Your task to perform on an android device: What's the weather today? Image 0: 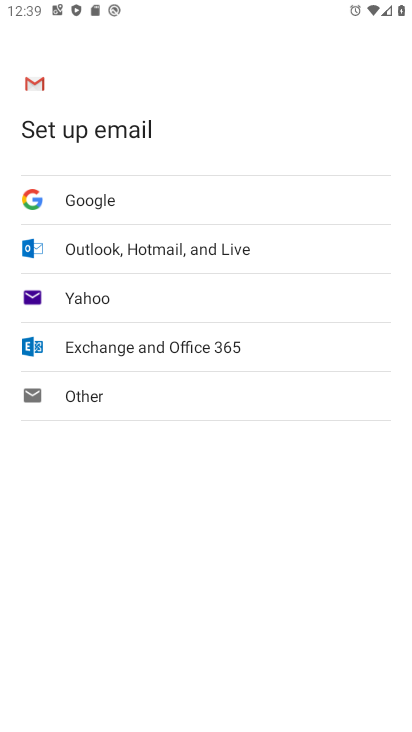
Step 0: press home button
Your task to perform on an android device: What's the weather today? Image 1: 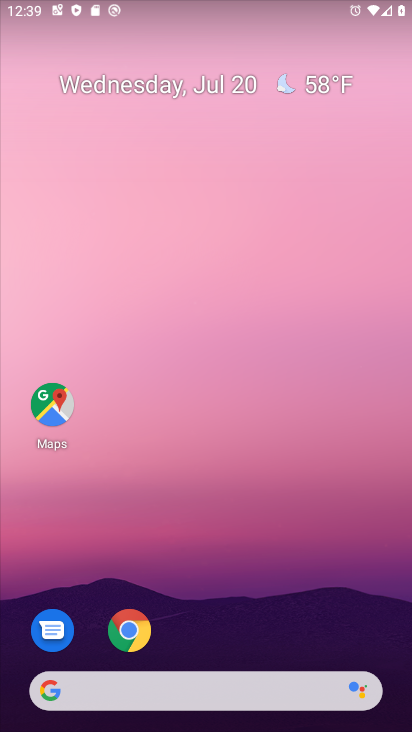
Step 1: click (138, 689)
Your task to perform on an android device: What's the weather today? Image 2: 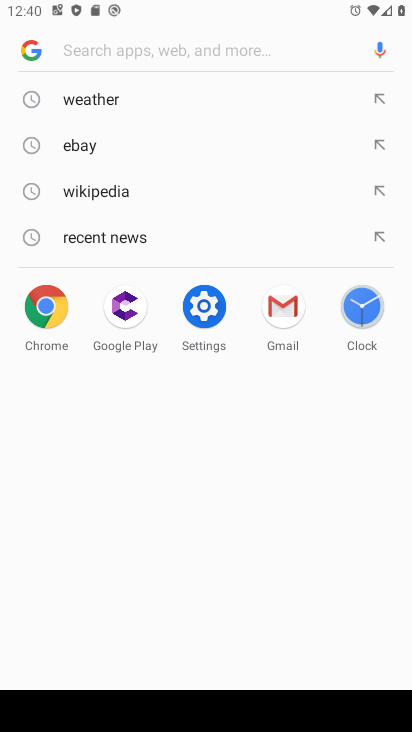
Step 2: click (84, 99)
Your task to perform on an android device: What's the weather today? Image 3: 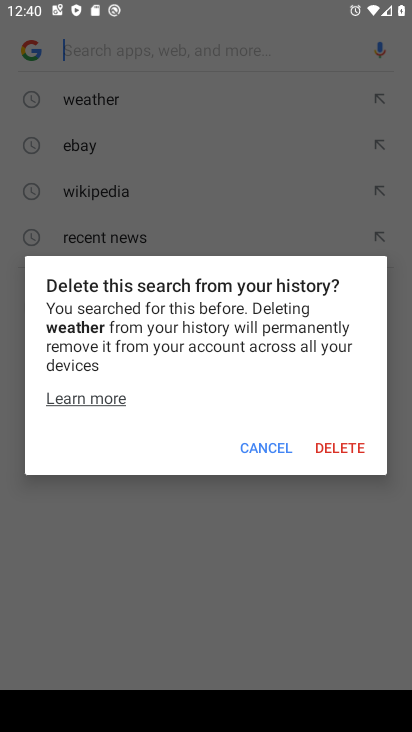
Step 3: click (282, 451)
Your task to perform on an android device: What's the weather today? Image 4: 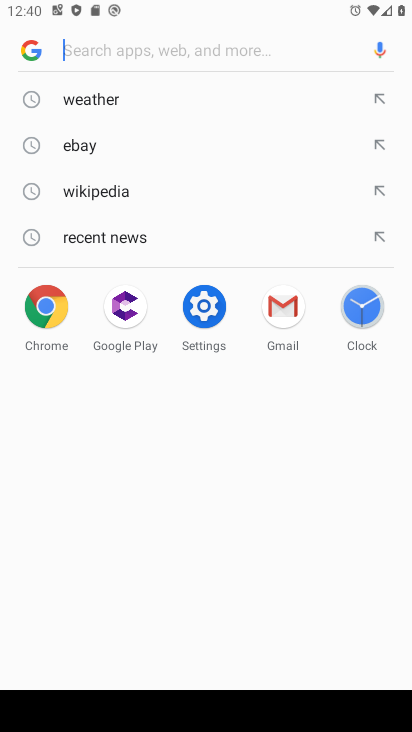
Step 4: click (108, 99)
Your task to perform on an android device: What's the weather today? Image 5: 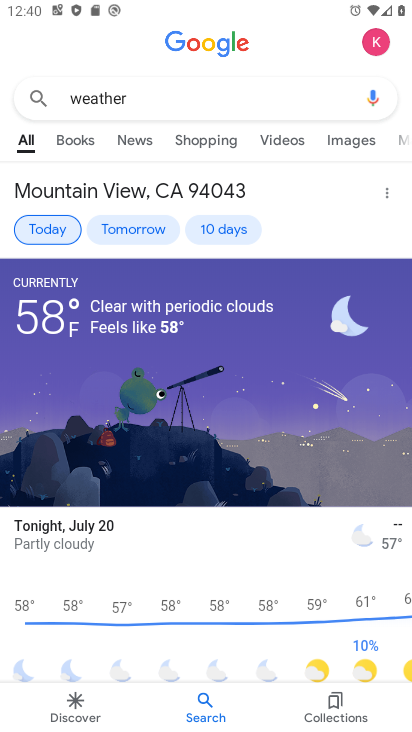
Step 5: task complete